Your task to perform on an android device: stop showing notifications on the lock screen Image 0: 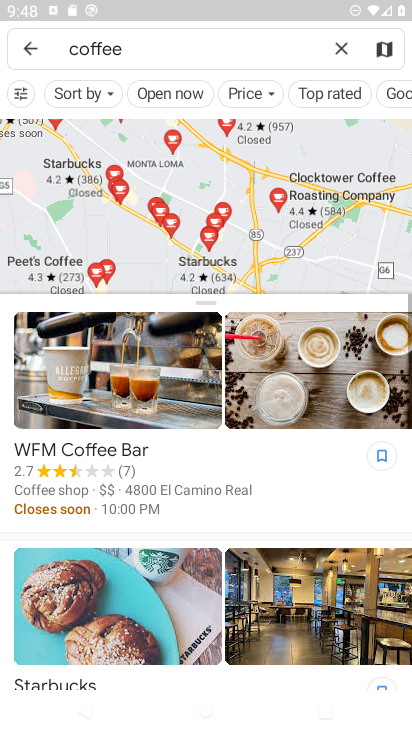
Step 0: press home button
Your task to perform on an android device: stop showing notifications on the lock screen Image 1: 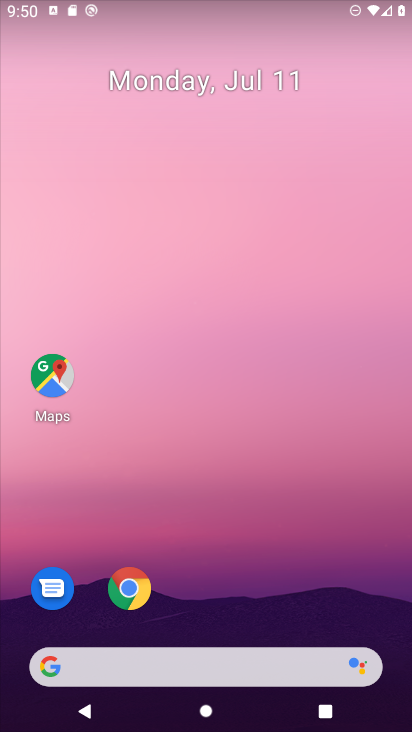
Step 1: drag from (375, 661) to (250, 23)
Your task to perform on an android device: stop showing notifications on the lock screen Image 2: 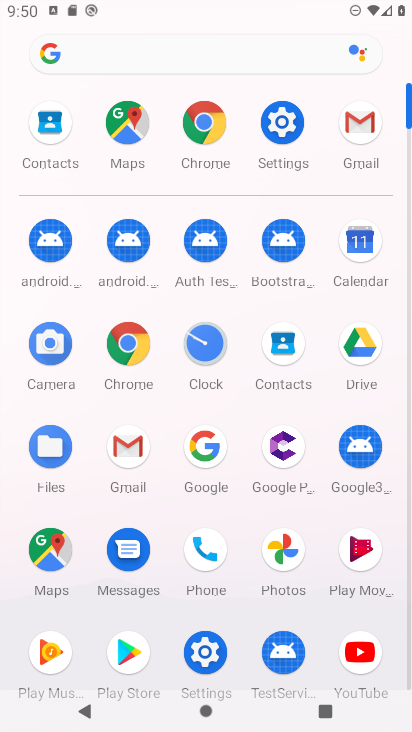
Step 2: click (297, 124)
Your task to perform on an android device: stop showing notifications on the lock screen Image 3: 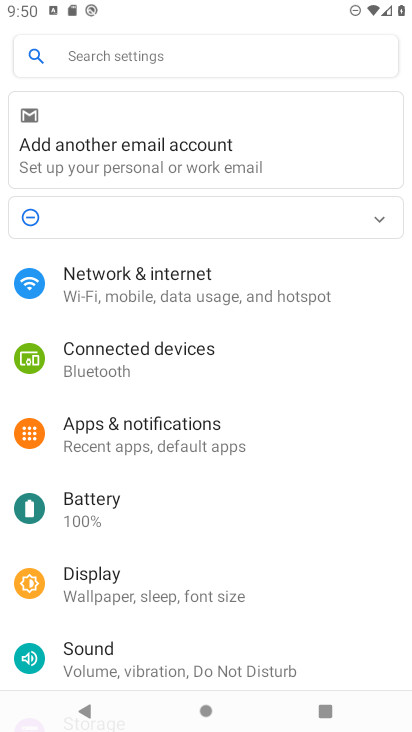
Step 3: click (204, 439)
Your task to perform on an android device: stop showing notifications on the lock screen Image 4: 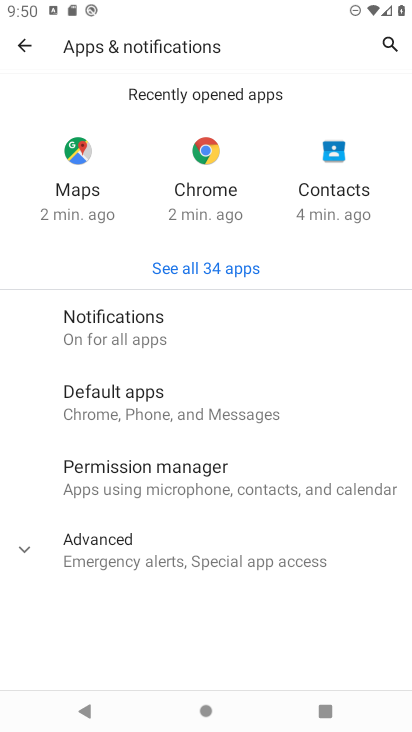
Step 4: click (126, 347)
Your task to perform on an android device: stop showing notifications on the lock screen Image 5: 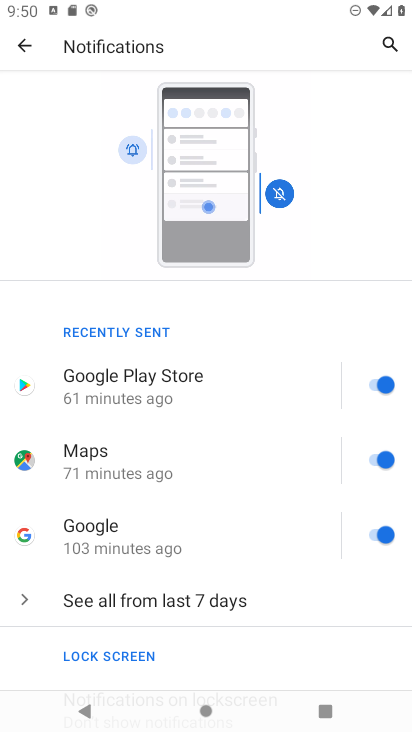
Step 5: drag from (101, 679) to (202, 168)
Your task to perform on an android device: stop showing notifications on the lock screen Image 6: 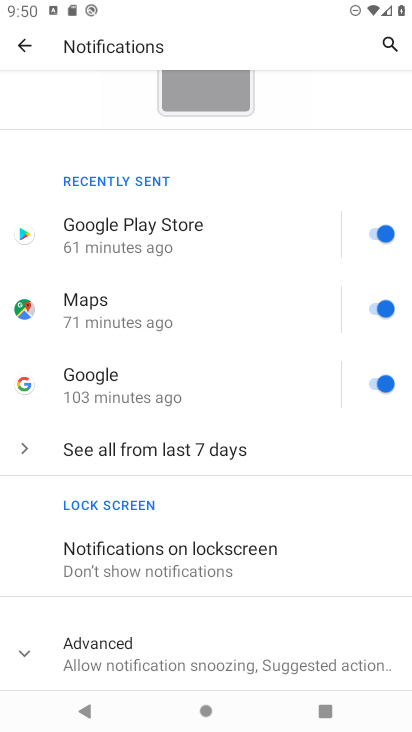
Step 6: click (163, 571)
Your task to perform on an android device: stop showing notifications on the lock screen Image 7: 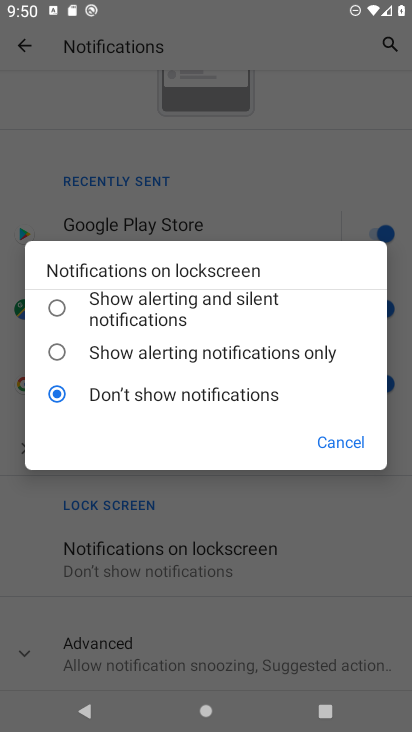
Step 7: task complete